Your task to perform on an android device: Go to location settings Image 0: 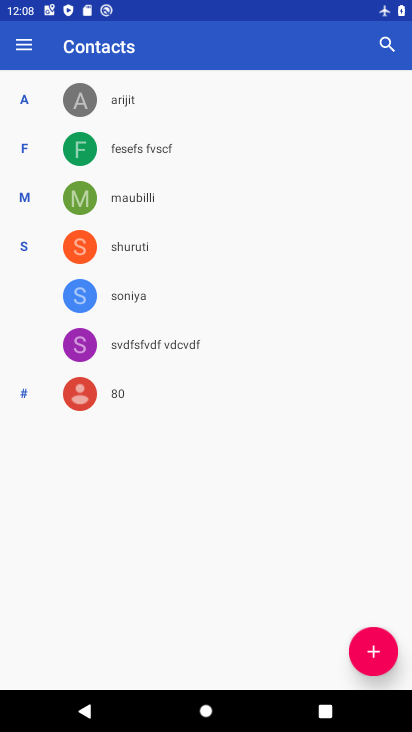
Step 0: press home button
Your task to perform on an android device: Go to location settings Image 1: 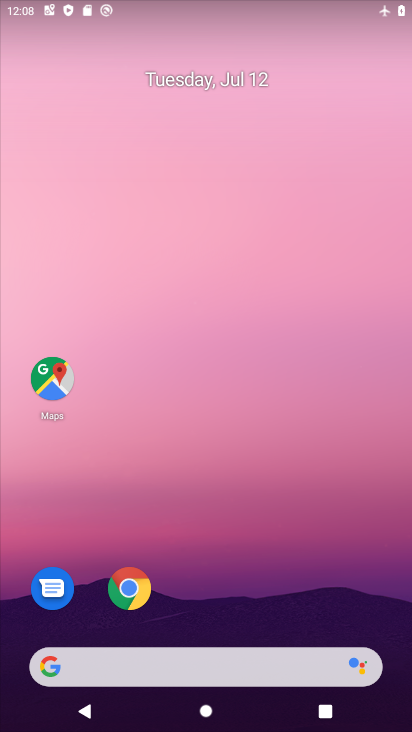
Step 1: drag from (324, 582) to (174, 63)
Your task to perform on an android device: Go to location settings Image 2: 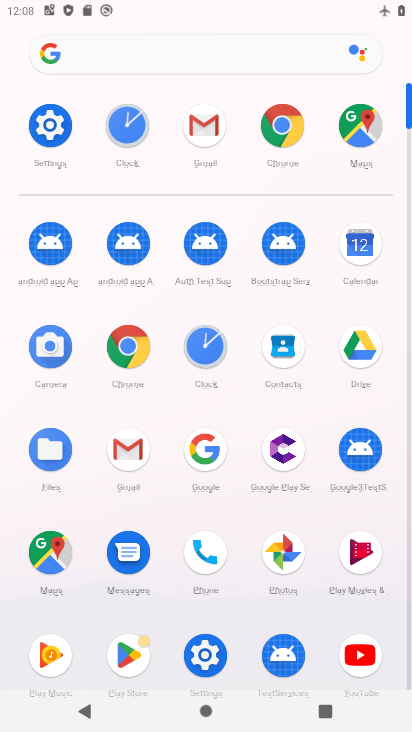
Step 2: click (46, 128)
Your task to perform on an android device: Go to location settings Image 3: 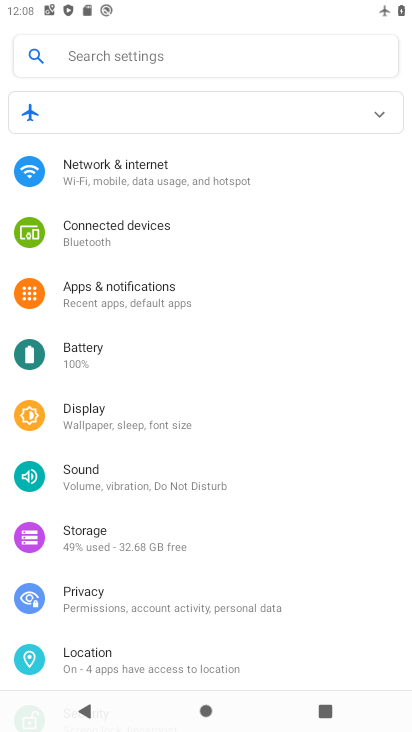
Step 3: click (180, 669)
Your task to perform on an android device: Go to location settings Image 4: 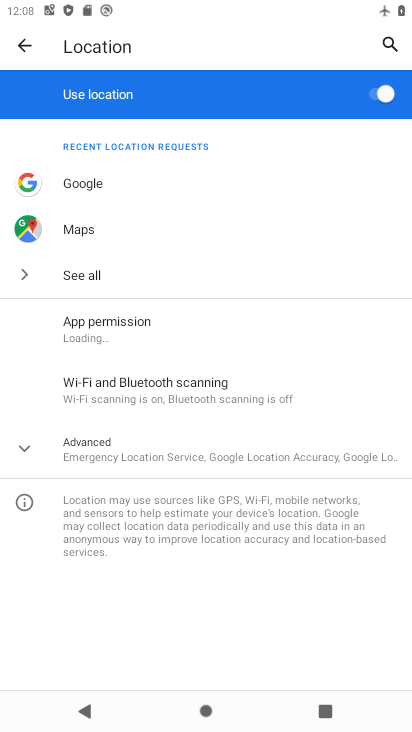
Step 4: task complete